Your task to perform on an android device: Go to Amazon Image 0: 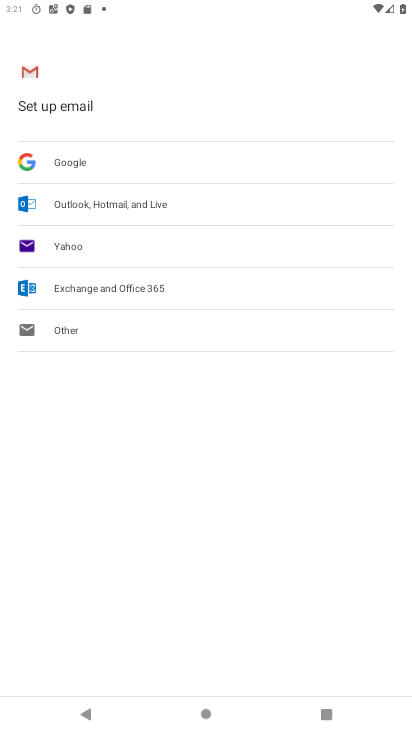
Step 0: press home button
Your task to perform on an android device: Go to Amazon Image 1: 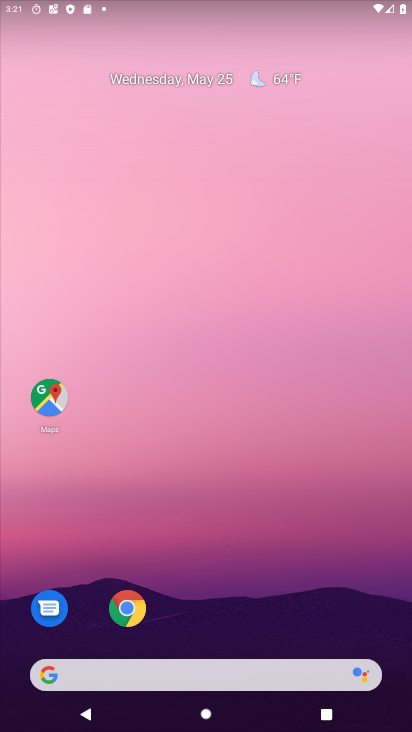
Step 1: click (120, 606)
Your task to perform on an android device: Go to Amazon Image 2: 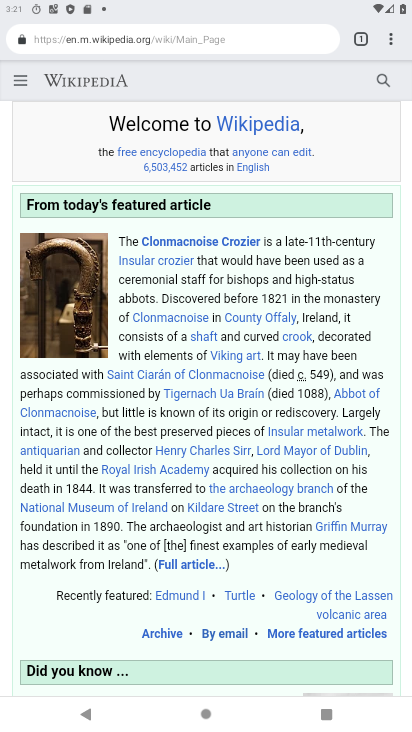
Step 2: click (128, 31)
Your task to perform on an android device: Go to Amazon Image 3: 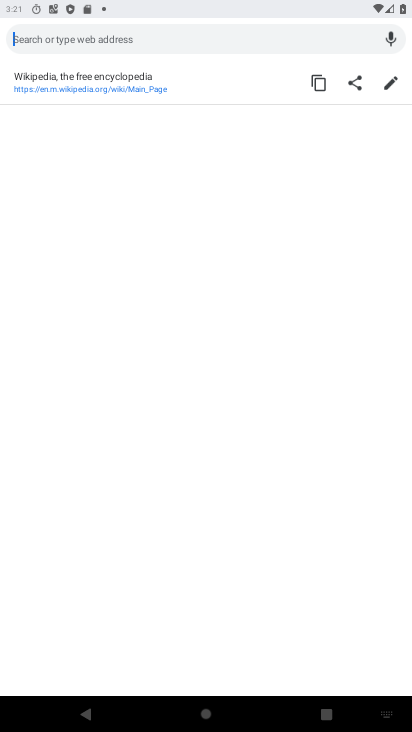
Step 3: type "amazon"
Your task to perform on an android device: Go to Amazon Image 4: 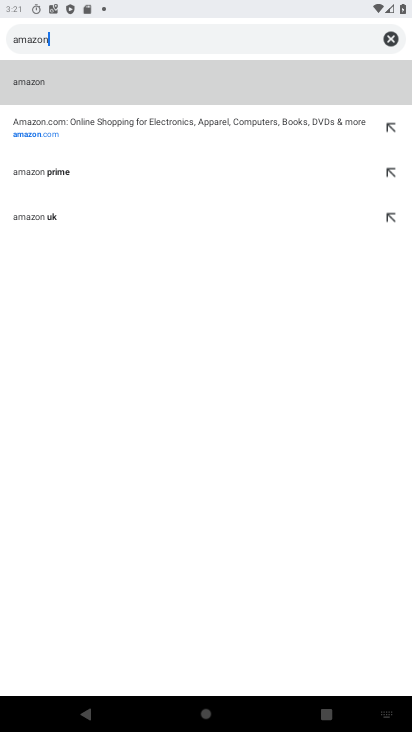
Step 4: click (40, 132)
Your task to perform on an android device: Go to Amazon Image 5: 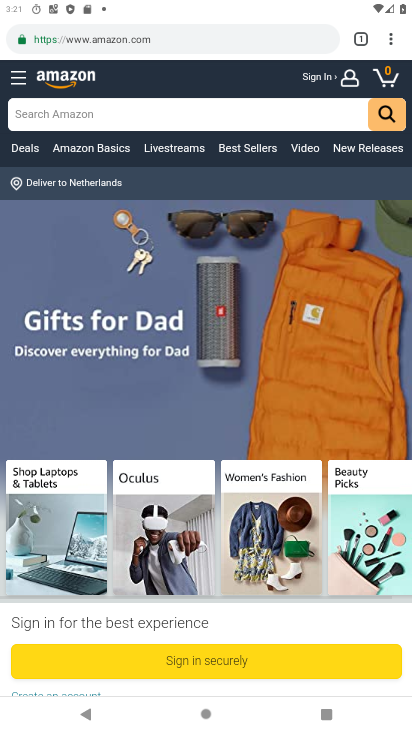
Step 5: task complete